Your task to perform on an android device: toggle notification dots Image 0: 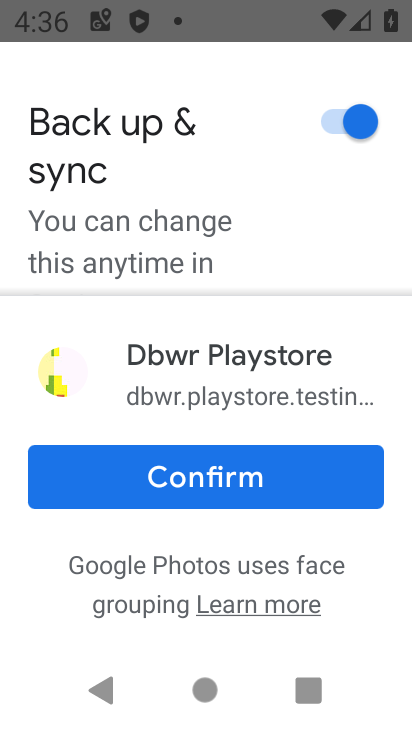
Step 0: press home button
Your task to perform on an android device: toggle notification dots Image 1: 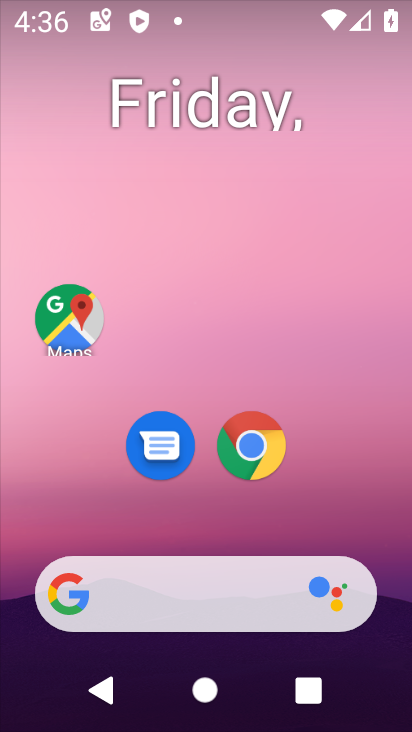
Step 1: drag from (343, 398) to (343, 56)
Your task to perform on an android device: toggle notification dots Image 2: 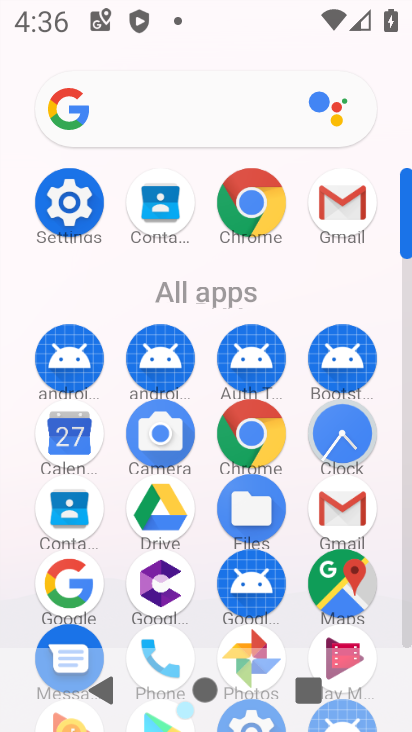
Step 2: click (62, 216)
Your task to perform on an android device: toggle notification dots Image 3: 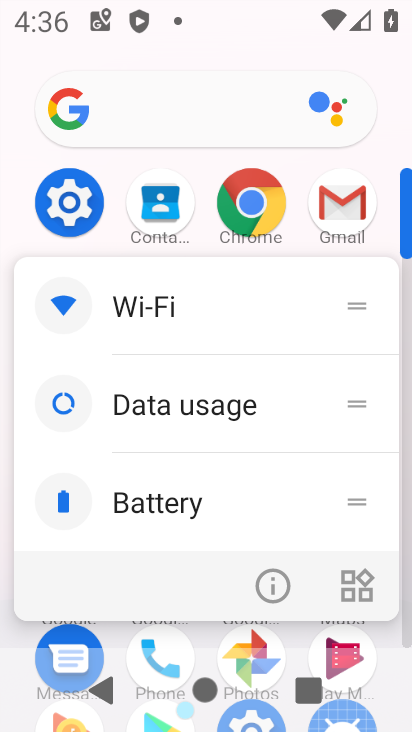
Step 3: click (70, 192)
Your task to perform on an android device: toggle notification dots Image 4: 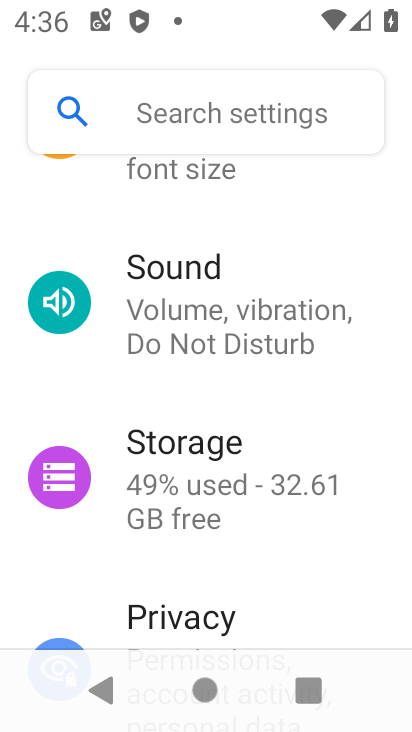
Step 4: drag from (329, 615) to (292, 130)
Your task to perform on an android device: toggle notification dots Image 5: 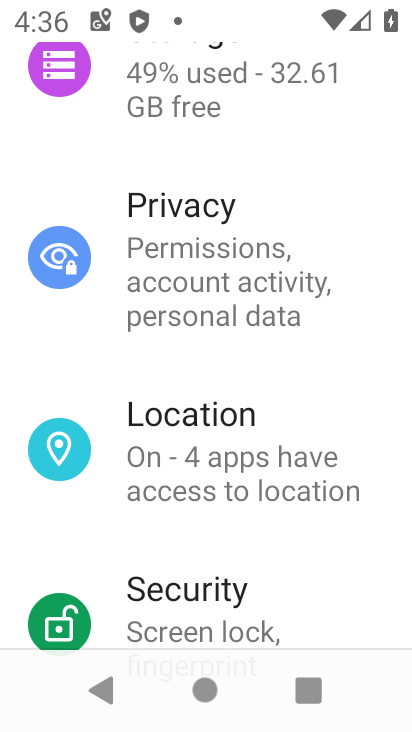
Step 5: drag from (320, 590) to (288, 703)
Your task to perform on an android device: toggle notification dots Image 6: 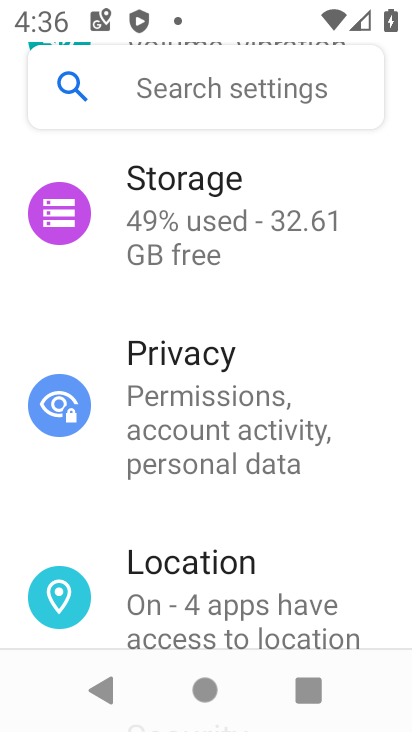
Step 6: drag from (292, 181) to (286, 731)
Your task to perform on an android device: toggle notification dots Image 7: 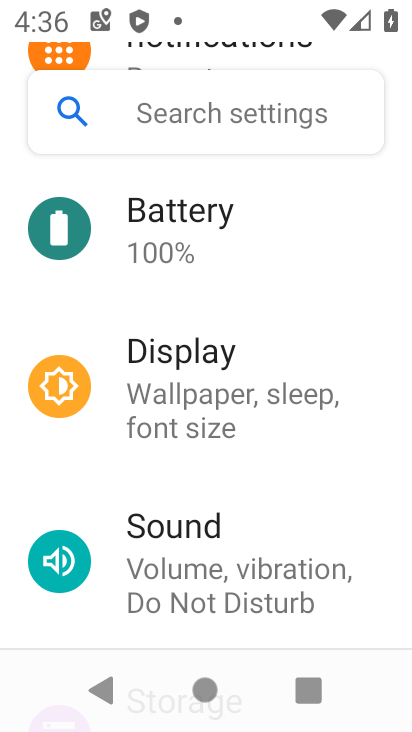
Step 7: drag from (296, 203) to (266, 707)
Your task to perform on an android device: toggle notification dots Image 8: 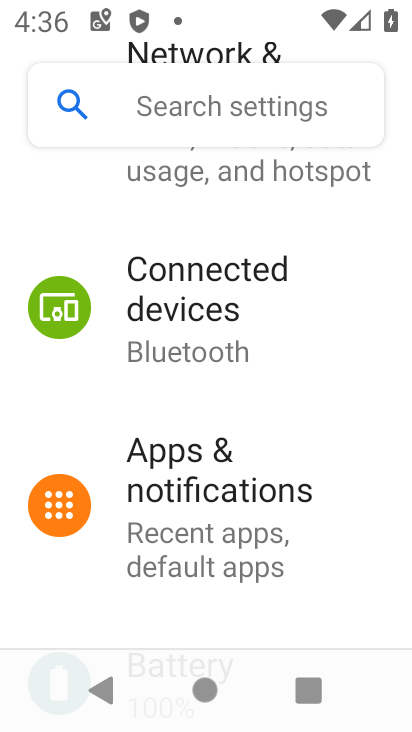
Step 8: click (195, 495)
Your task to perform on an android device: toggle notification dots Image 9: 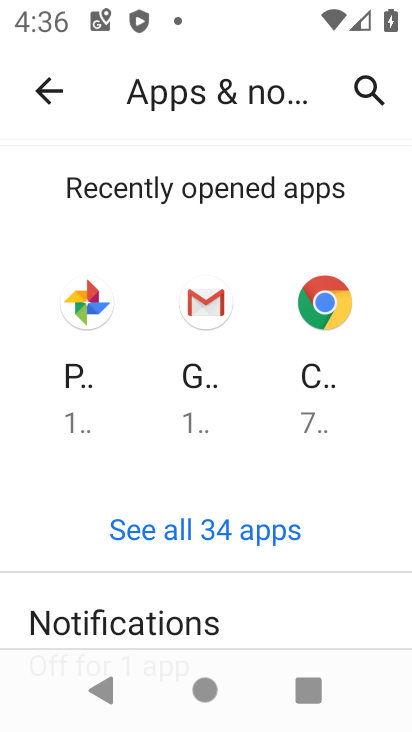
Step 9: drag from (315, 593) to (280, 108)
Your task to perform on an android device: toggle notification dots Image 10: 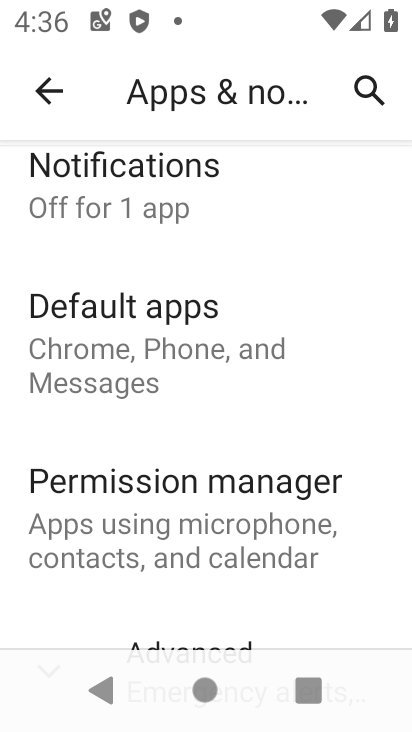
Step 10: click (122, 184)
Your task to perform on an android device: toggle notification dots Image 11: 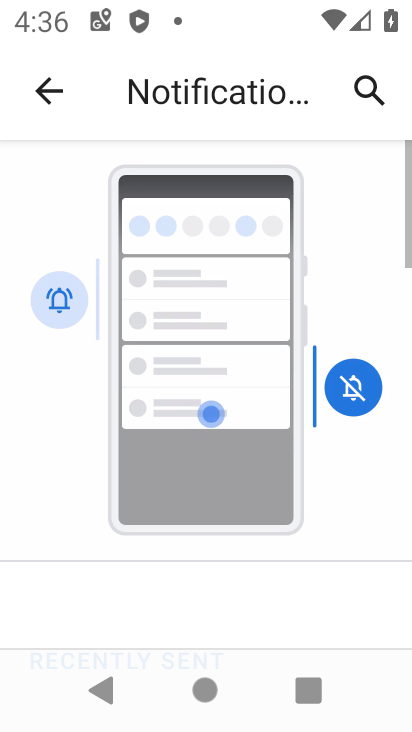
Step 11: drag from (330, 623) to (311, 52)
Your task to perform on an android device: toggle notification dots Image 12: 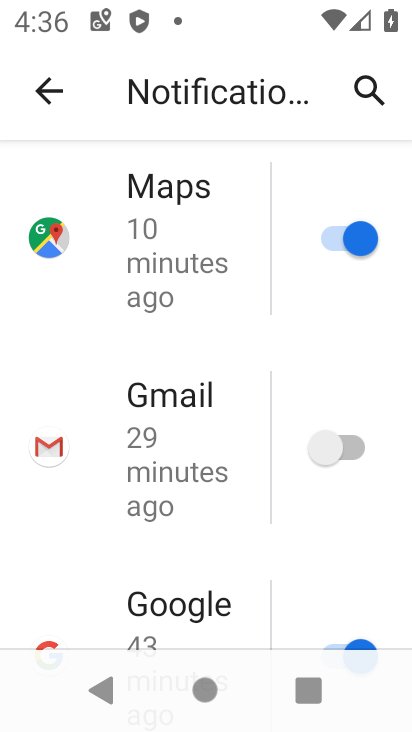
Step 12: drag from (239, 644) to (221, 60)
Your task to perform on an android device: toggle notification dots Image 13: 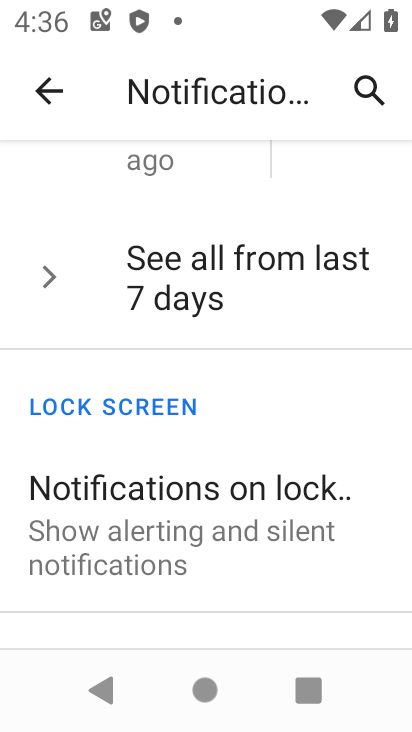
Step 13: drag from (252, 624) to (219, 290)
Your task to perform on an android device: toggle notification dots Image 14: 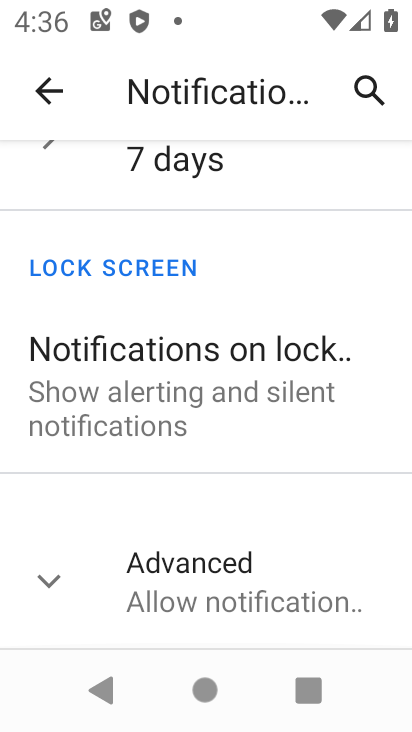
Step 14: click (102, 588)
Your task to perform on an android device: toggle notification dots Image 15: 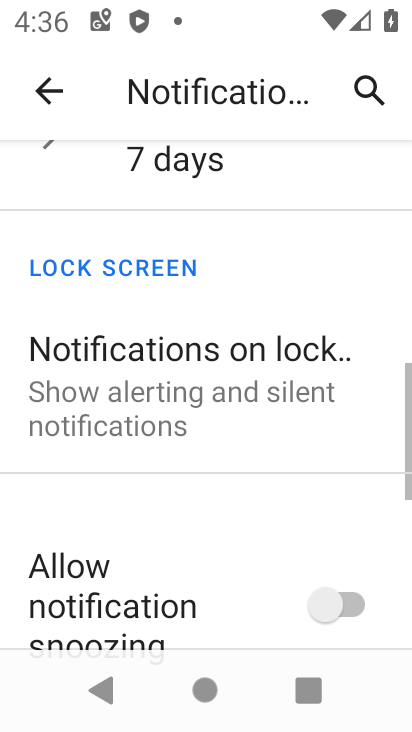
Step 15: drag from (212, 549) to (198, 124)
Your task to perform on an android device: toggle notification dots Image 16: 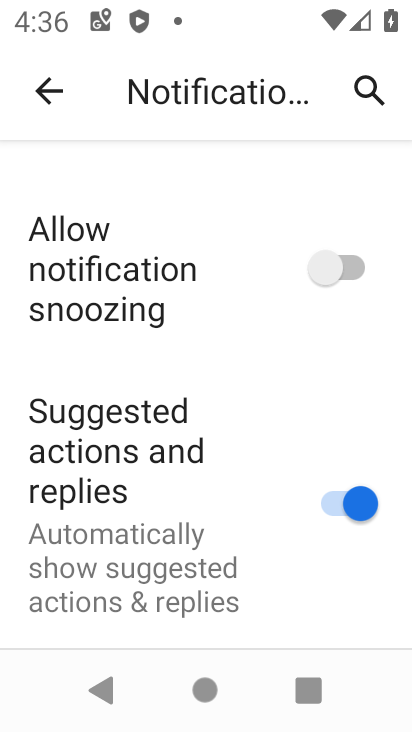
Step 16: drag from (236, 592) to (206, 236)
Your task to perform on an android device: toggle notification dots Image 17: 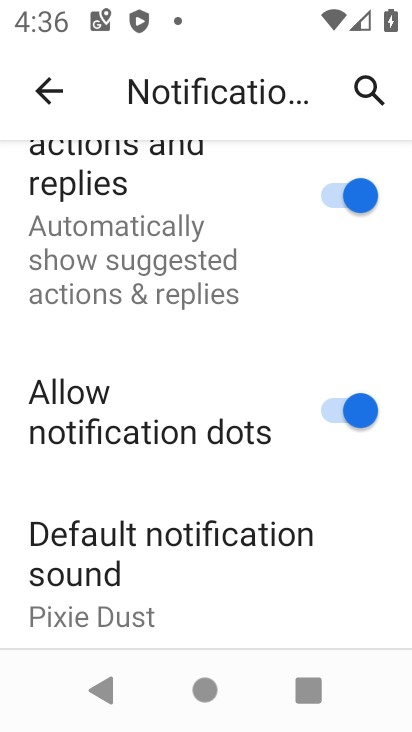
Step 17: click (334, 412)
Your task to perform on an android device: toggle notification dots Image 18: 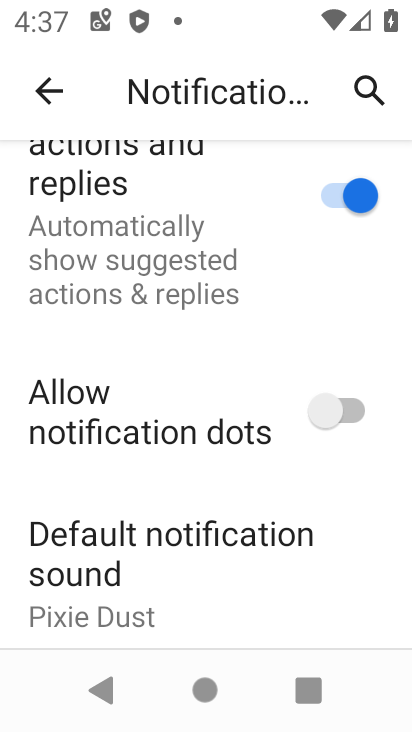
Step 18: task complete